Your task to perform on an android device: turn on notifications settings in the gmail app Image 0: 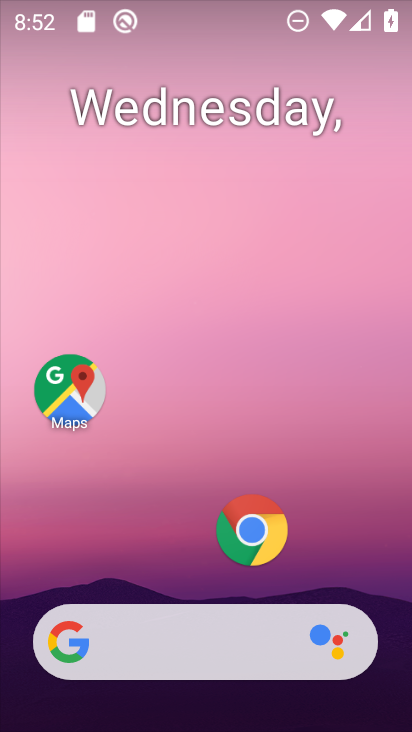
Step 0: drag from (160, 527) to (240, 100)
Your task to perform on an android device: turn on notifications settings in the gmail app Image 1: 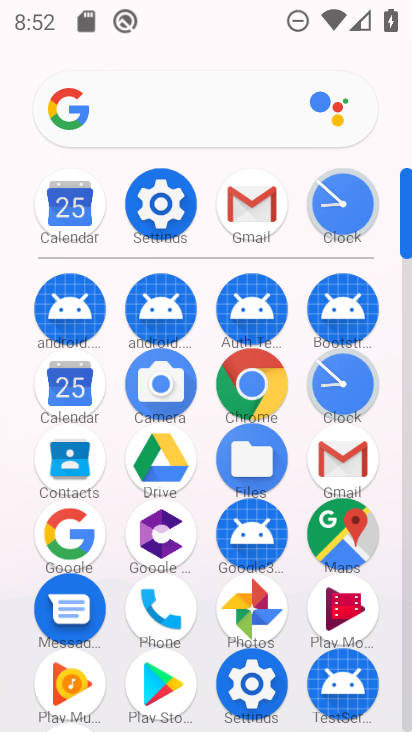
Step 1: click (241, 191)
Your task to perform on an android device: turn on notifications settings in the gmail app Image 2: 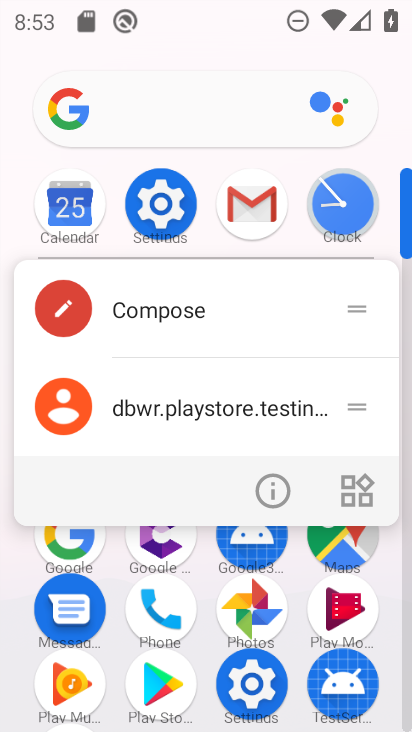
Step 2: click (269, 482)
Your task to perform on an android device: turn on notifications settings in the gmail app Image 3: 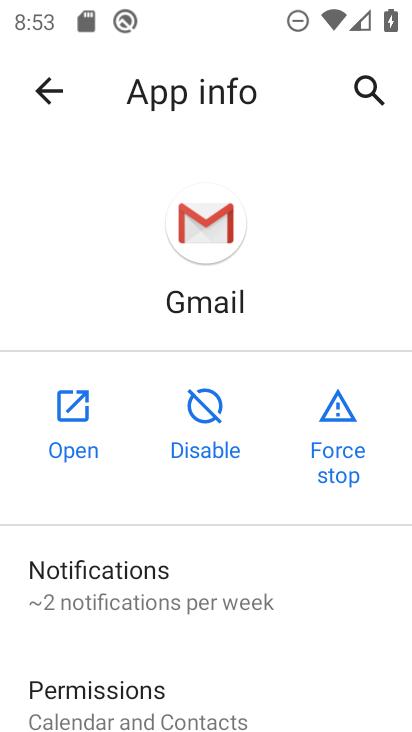
Step 3: click (211, 574)
Your task to perform on an android device: turn on notifications settings in the gmail app Image 4: 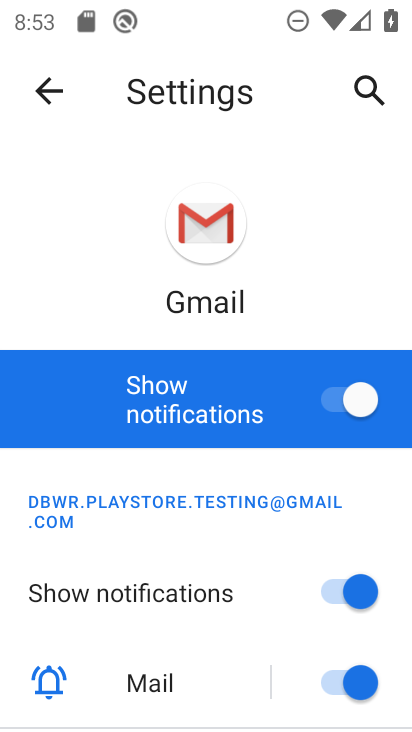
Step 4: task complete